Your task to perform on an android device: change the clock style Image 0: 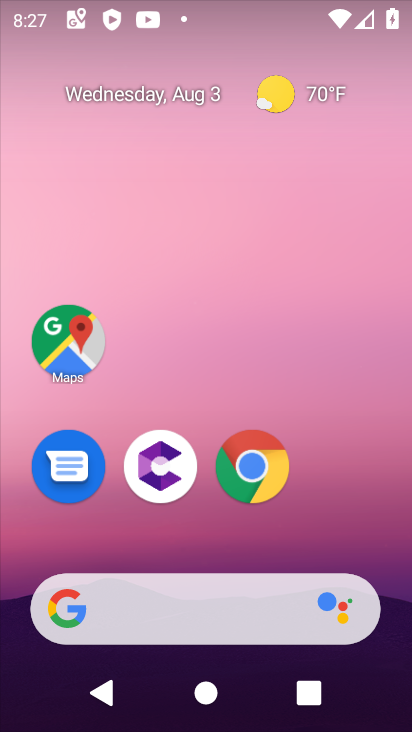
Step 0: drag from (347, 316) to (359, 22)
Your task to perform on an android device: change the clock style Image 1: 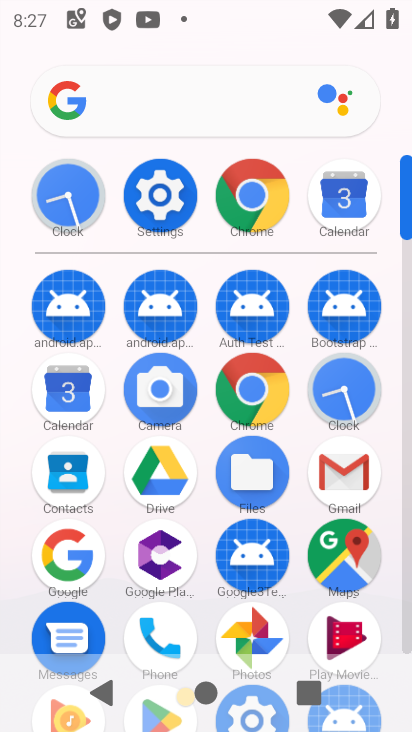
Step 1: click (349, 382)
Your task to perform on an android device: change the clock style Image 2: 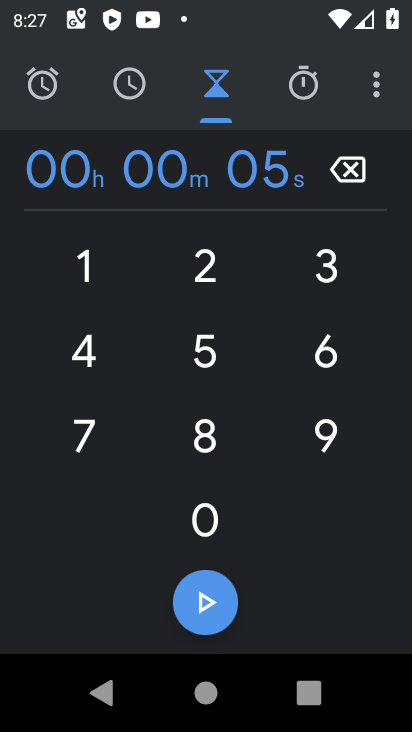
Step 2: click (383, 74)
Your task to perform on an android device: change the clock style Image 3: 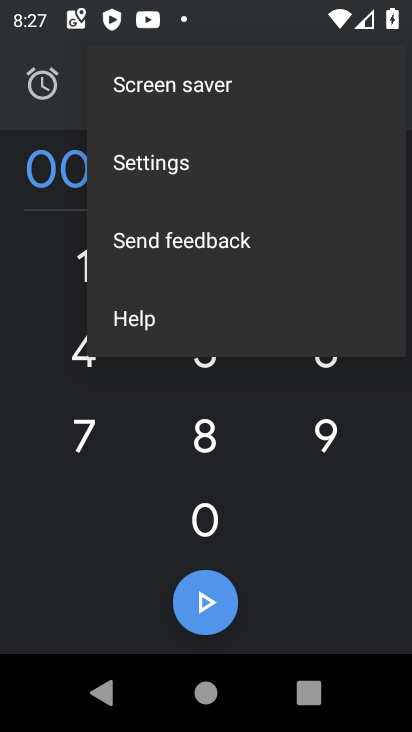
Step 3: click (183, 176)
Your task to perform on an android device: change the clock style Image 4: 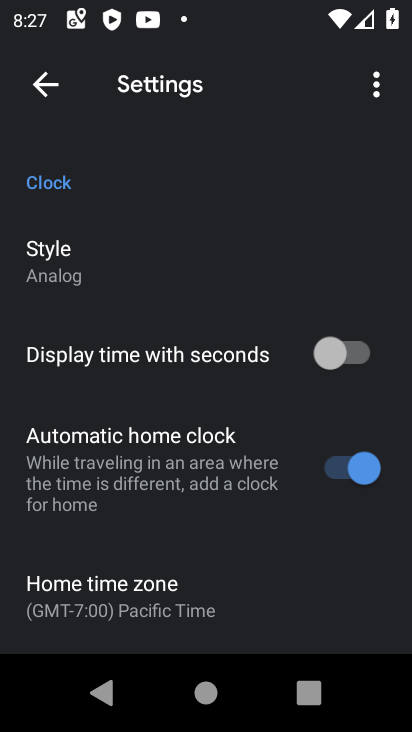
Step 4: click (84, 255)
Your task to perform on an android device: change the clock style Image 5: 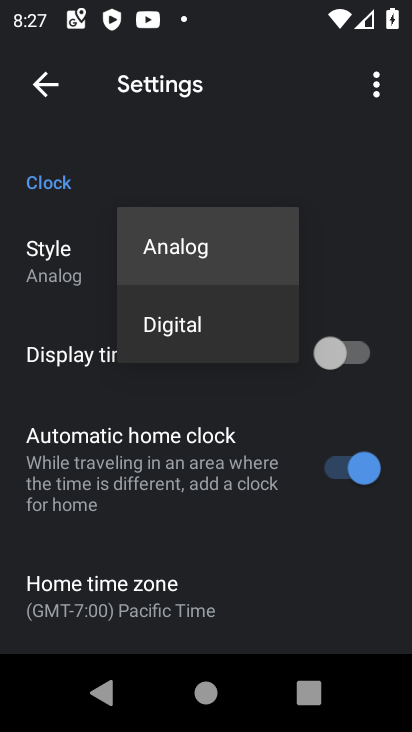
Step 5: click (179, 322)
Your task to perform on an android device: change the clock style Image 6: 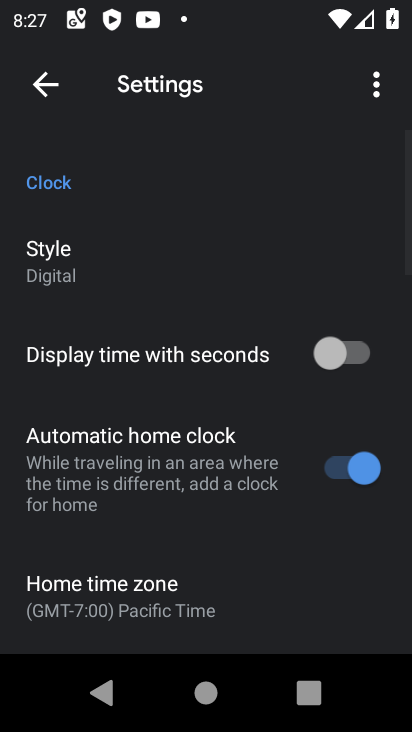
Step 6: task complete